Your task to perform on an android device: Is it going to rain tomorrow? Image 0: 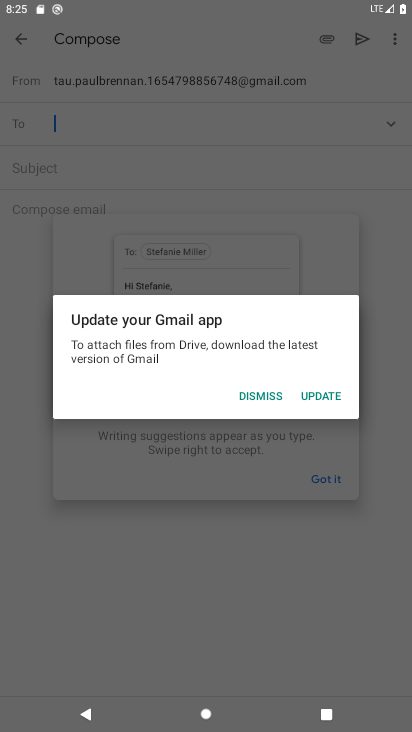
Step 0: press home button
Your task to perform on an android device: Is it going to rain tomorrow? Image 1: 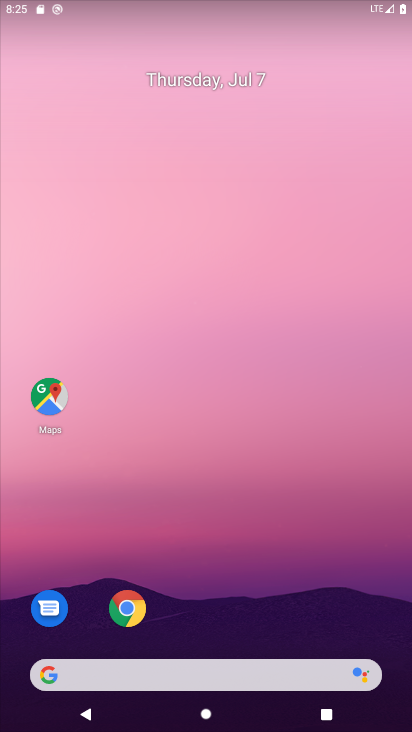
Step 1: click (257, 671)
Your task to perform on an android device: Is it going to rain tomorrow? Image 2: 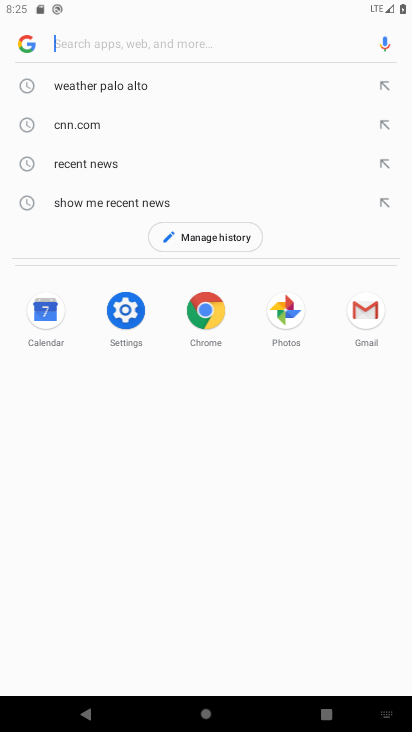
Step 2: type "weather"
Your task to perform on an android device: Is it going to rain tomorrow? Image 3: 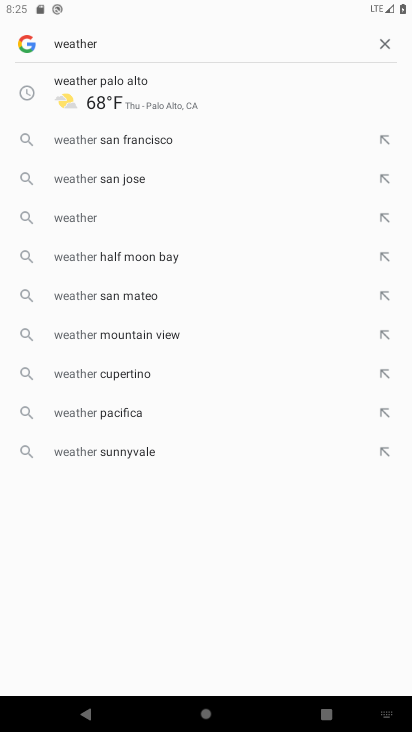
Step 3: click (144, 97)
Your task to perform on an android device: Is it going to rain tomorrow? Image 4: 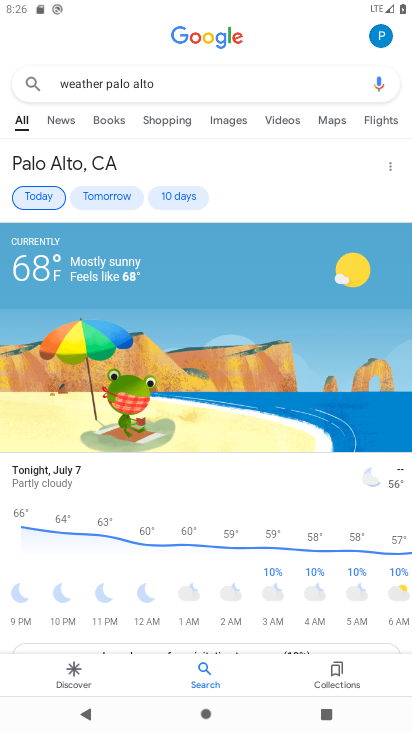
Step 4: click (116, 186)
Your task to perform on an android device: Is it going to rain tomorrow? Image 5: 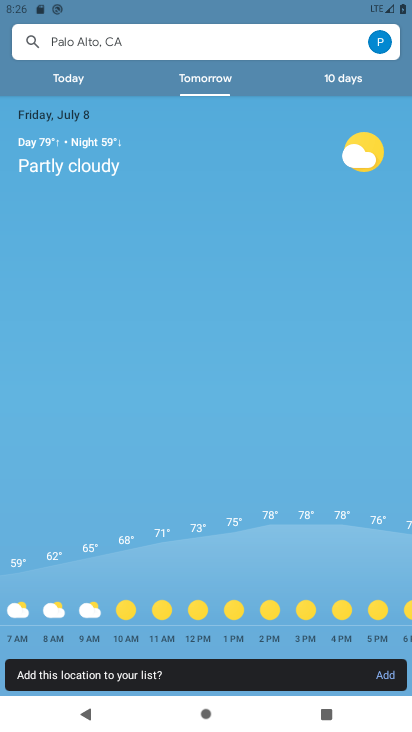
Step 5: task complete